Your task to perform on an android device: turn off data saver in the chrome app Image 0: 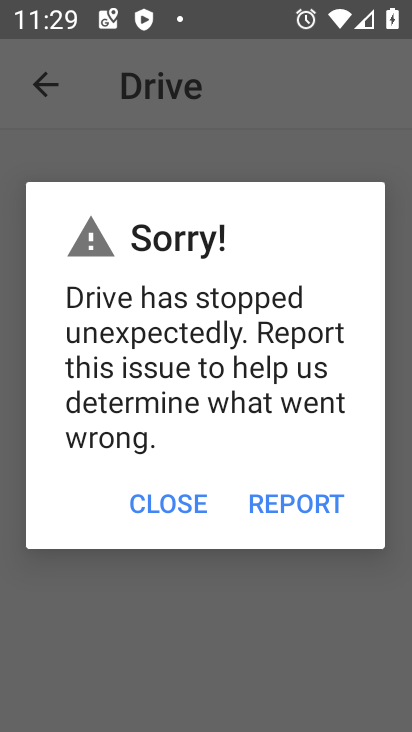
Step 0: press home button
Your task to perform on an android device: turn off data saver in the chrome app Image 1: 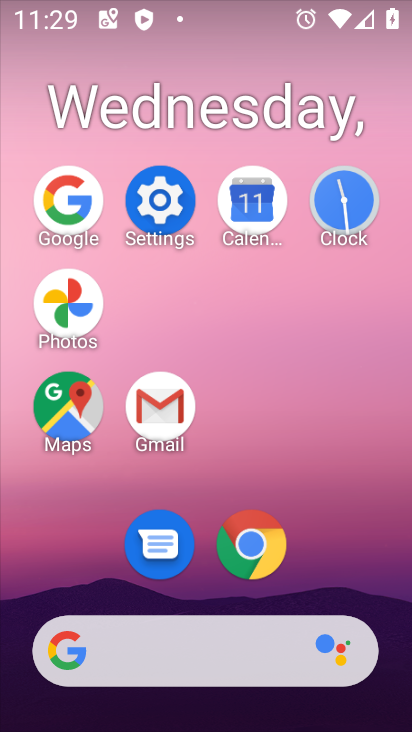
Step 1: click (259, 540)
Your task to perform on an android device: turn off data saver in the chrome app Image 2: 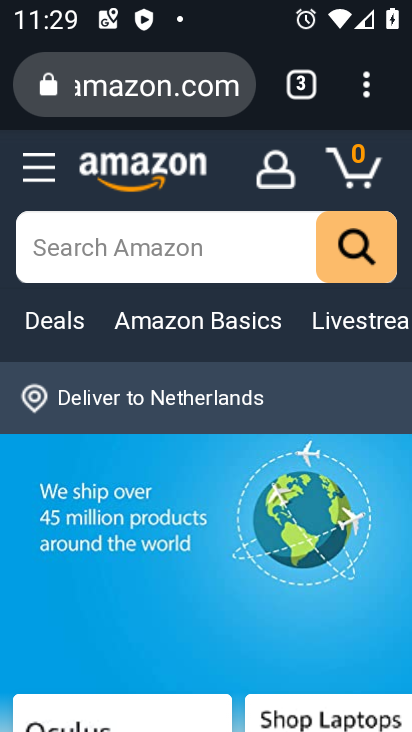
Step 2: click (370, 81)
Your task to perform on an android device: turn off data saver in the chrome app Image 3: 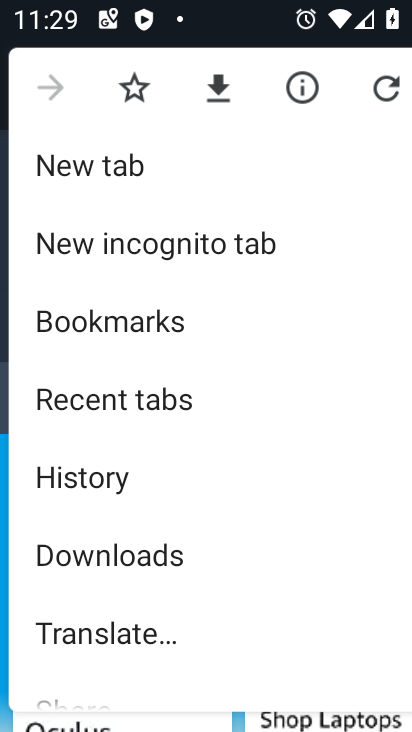
Step 3: drag from (259, 620) to (284, 213)
Your task to perform on an android device: turn off data saver in the chrome app Image 4: 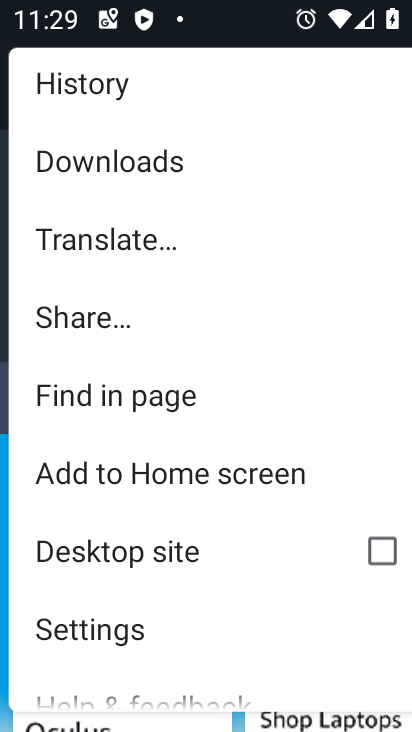
Step 4: drag from (244, 615) to (243, 371)
Your task to perform on an android device: turn off data saver in the chrome app Image 5: 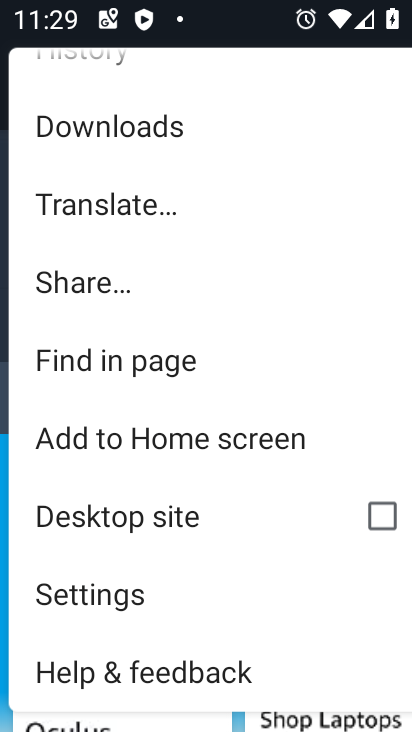
Step 5: click (246, 593)
Your task to perform on an android device: turn off data saver in the chrome app Image 6: 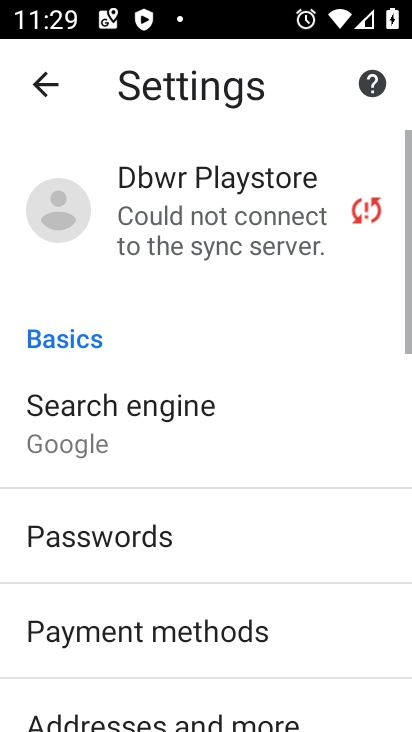
Step 6: task complete